Your task to perform on an android device: What's the weather going to be this weekend? Image 0: 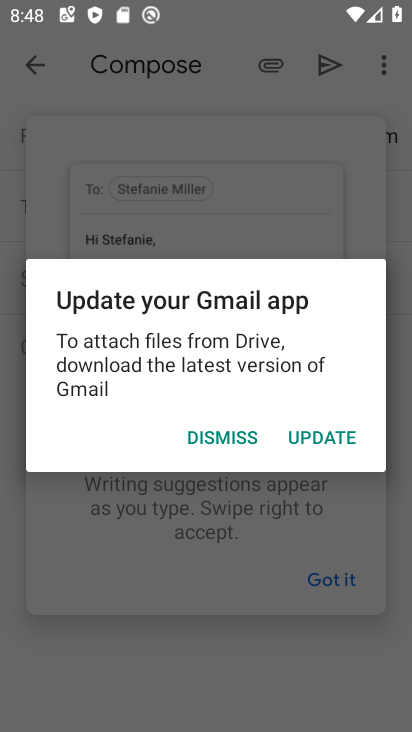
Step 0: press home button
Your task to perform on an android device: What's the weather going to be this weekend? Image 1: 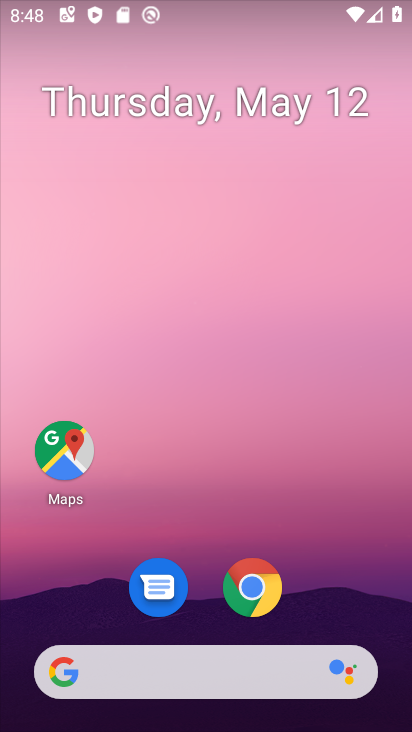
Step 1: drag from (349, 561) to (302, 102)
Your task to perform on an android device: What's the weather going to be this weekend? Image 2: 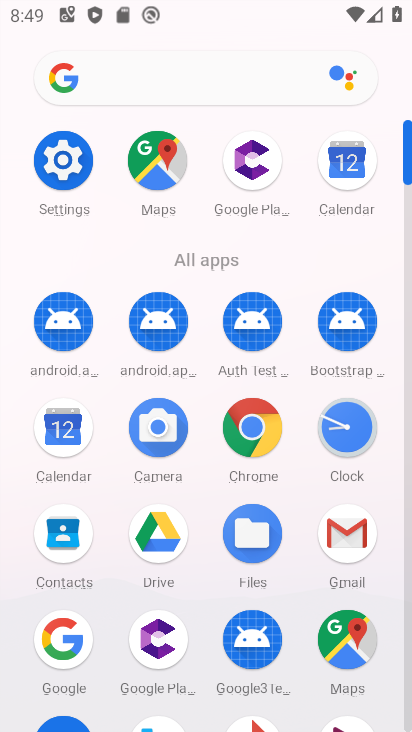
Step 2: press home button
Your task to perform on an android device: What's the weather going to be this weekend? Image 3: 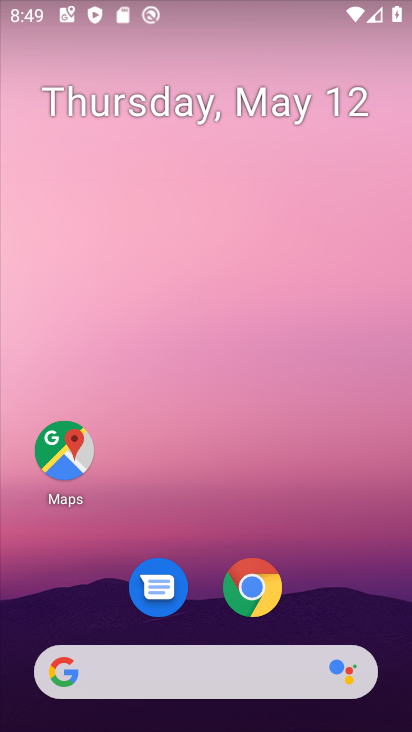
Step 3: drag from (313, 439) to (283, 29)
Your task to perform on an android device: What's the weather going to be this weekend? Image 4: 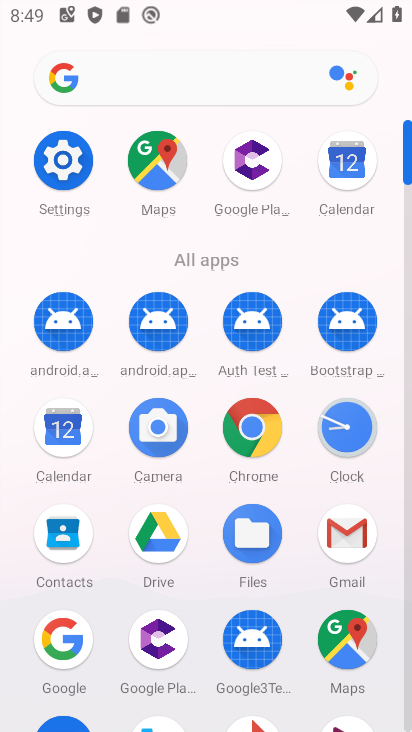
Step 4: click (266, 426)
Your task to perform on an android device: What's the weather going to be this weekend? Image 5: 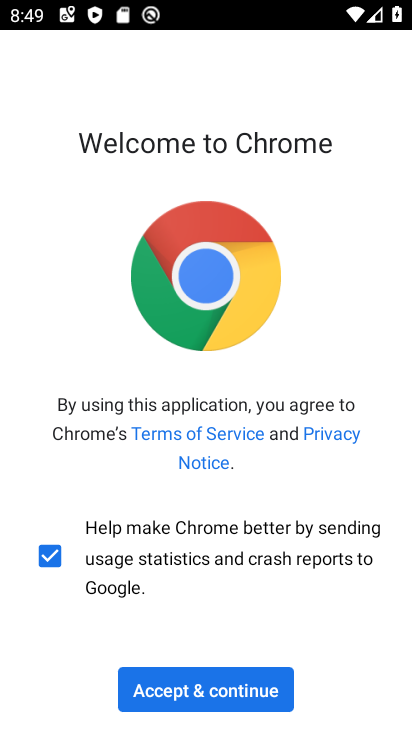
Step 5: click (260, 676)
Your task to perform on an android device: What's the weather going to be this weekend? Image 6: 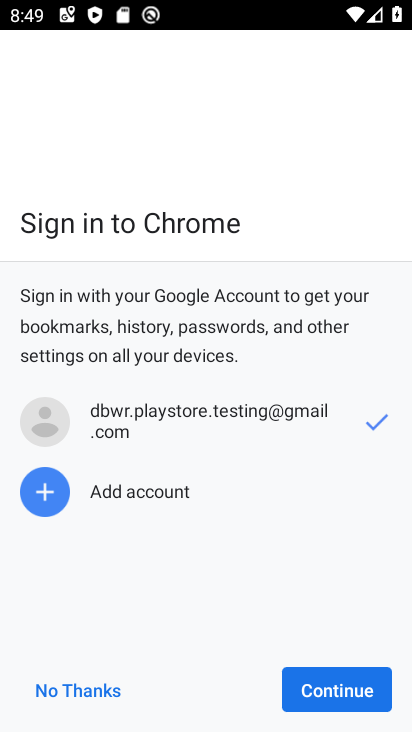
Step 6: click (263, 692)
Your task to perform on an android device: What's the weather going to be this weekend? Image 7: 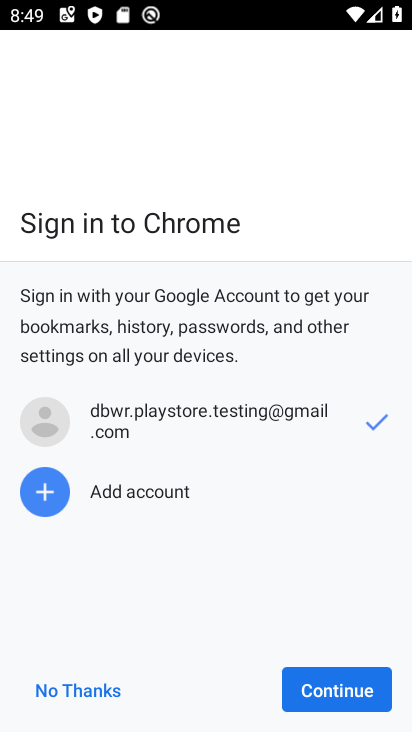
Step 7: click (365, 681)
Your task to perform on an android device: What's the weather going to be this weekend? Image 8: 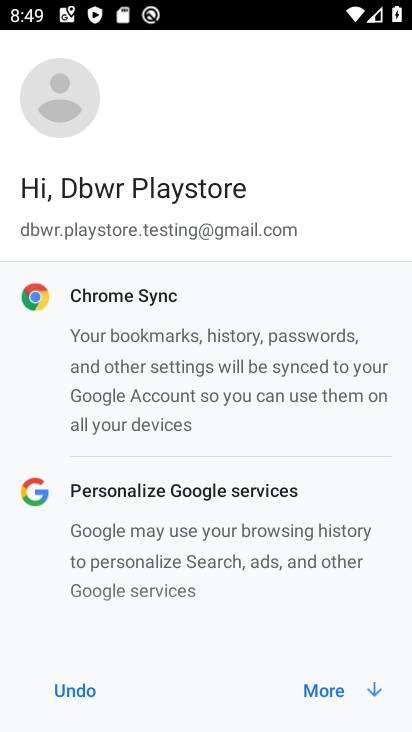
Step 8: click (343, 693)
Your task to perform on an android device: What's the weather going to be this weekend? Image 9: 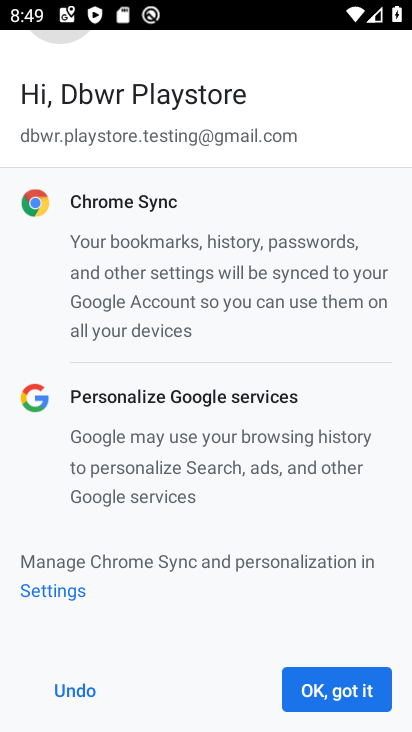
Step 9: click (344, 690)
Your task to perform on an android device: What's the weather going to be this weekend? Image 10: 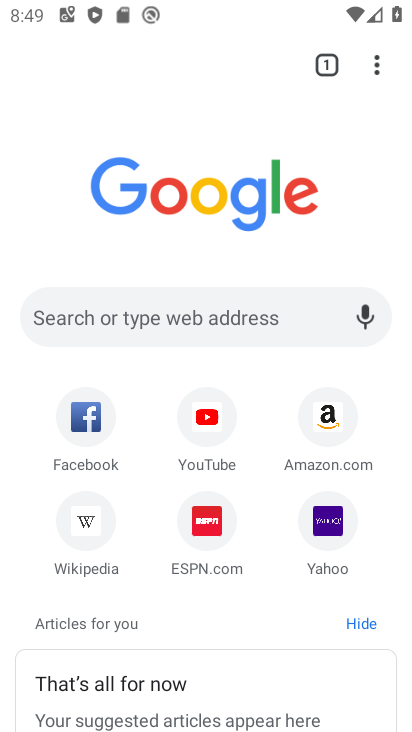
Step 10: click (198, 302)
Your task to perform on an android device: What's the weather going to be this weekend? Image 11: 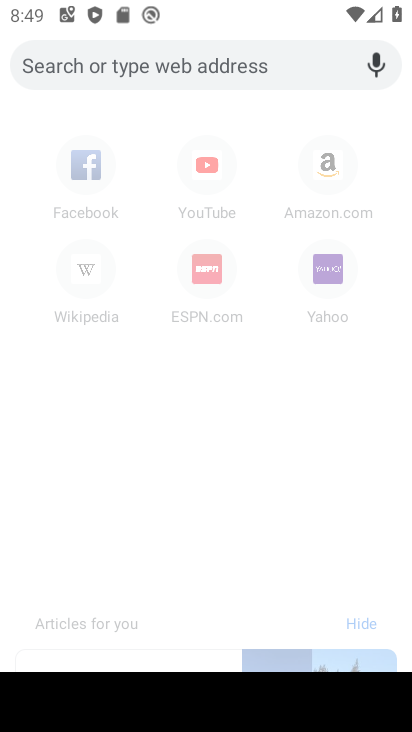
Step 11: type "weather"
Your task to perform on an android device: What's the weather going to be this weekend? Image 12: 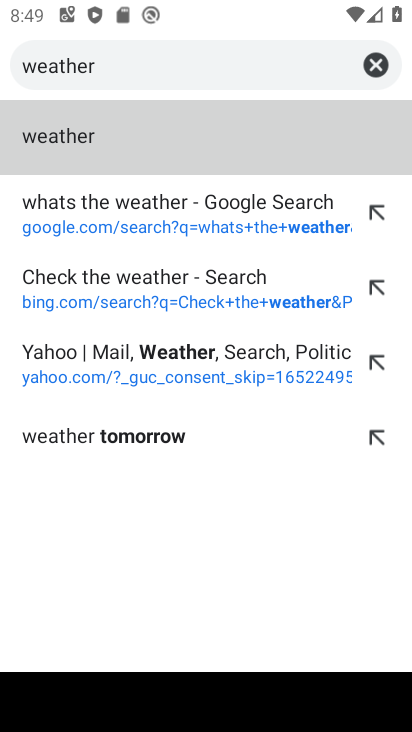
Step 12: click (92, 115)
Your task to perform on an android device: What's the weather going to be this weekend? Image 13: 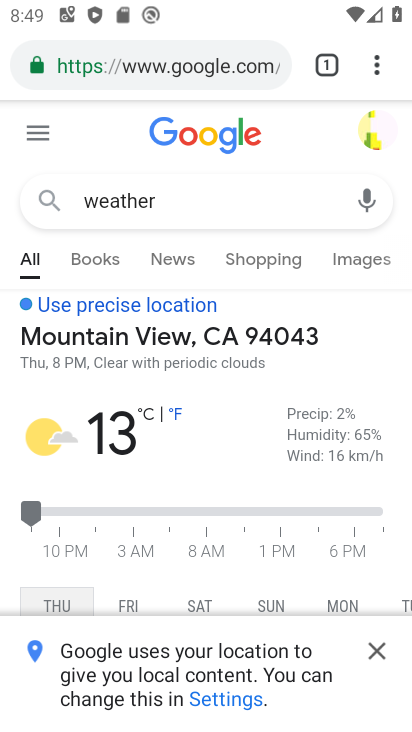
Step 13: task complete